Your task to perform on an android device: check android version Image 0: 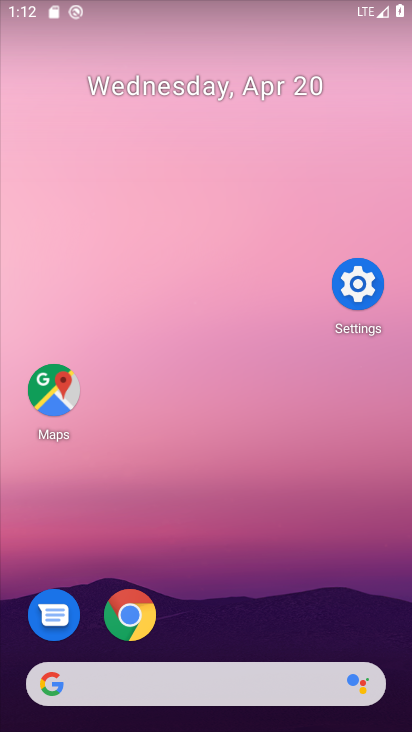
Step 0: click (364, 283)
Your task to perform on an android device: check android version Image 1: 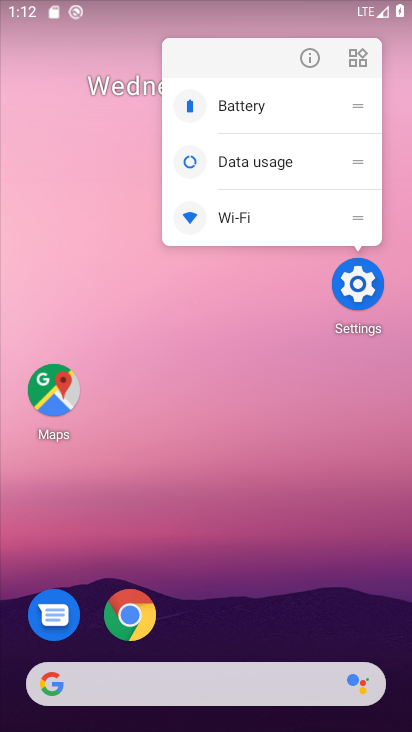
Step 1: click (315, 53)
Your task to perform on an android device: check android version Image 2: 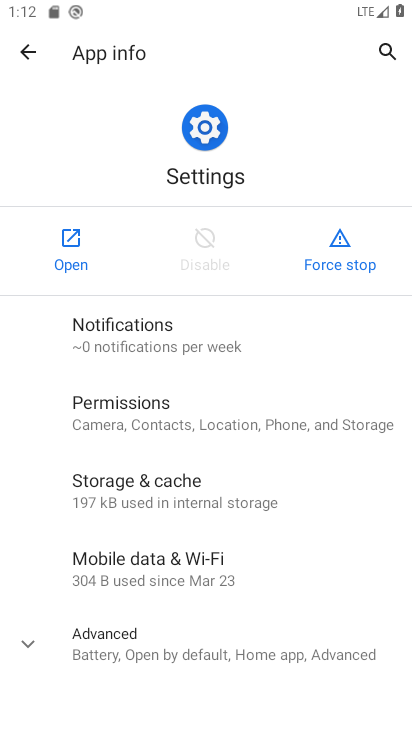
Step 2: click (66, 240)
Your task to perform on an android device: check android version Image 3: 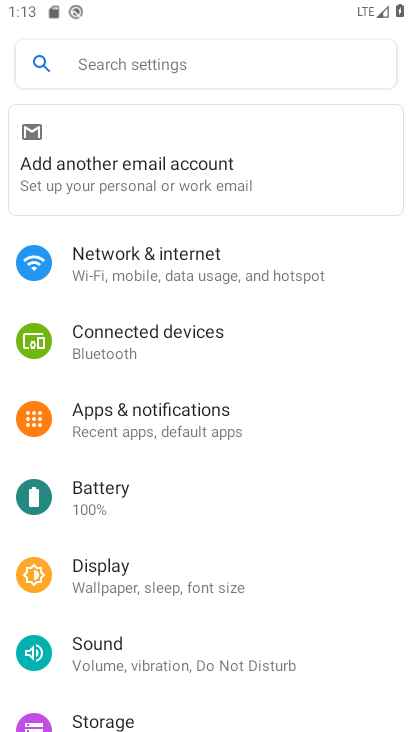
Step 3: drag from (193, 572) to (290, 128)
Your task to perform on an android device: check android version Image 4: 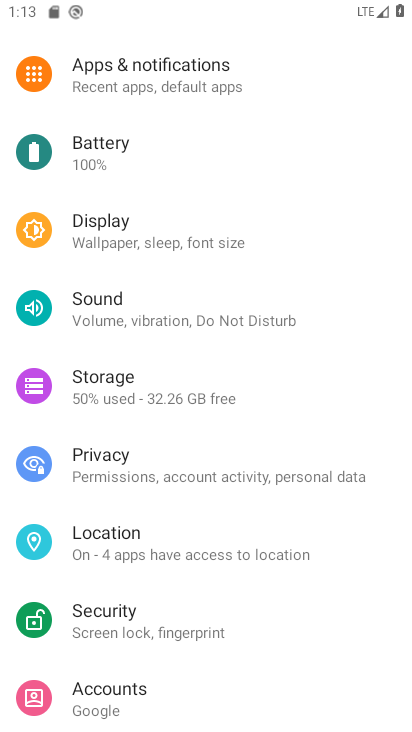
Step 4: drag from (174, 620) to (322, 74)
Your task to perform on an android device: check android version Image 5: 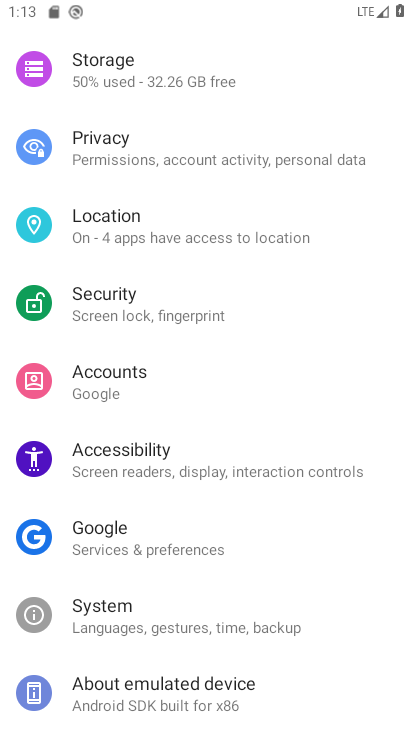
Step 5: drag from (174, 618) to (325, 173)
Your task to perform on an android device: check android version Image 6: 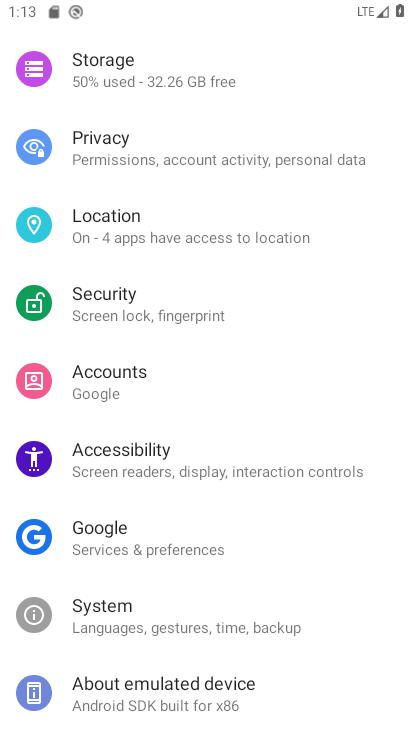
Step 6: click (150, 691)
Your task to perform on an android device: check android version Image 7: 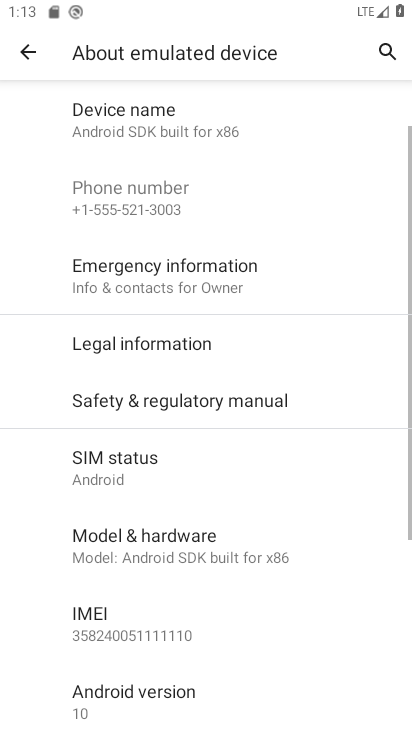
Step 7: click (166, 699)
Your task to perform on an android device: check android version Image 8: 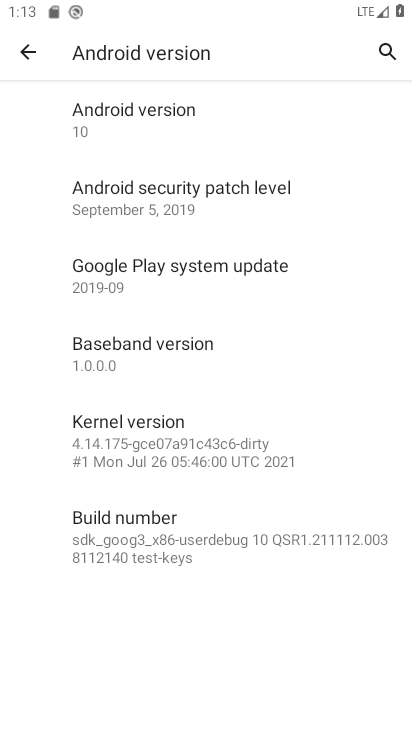
Step 8: click (156, 114)
Your task to perform on an android device: check android version Image 9: 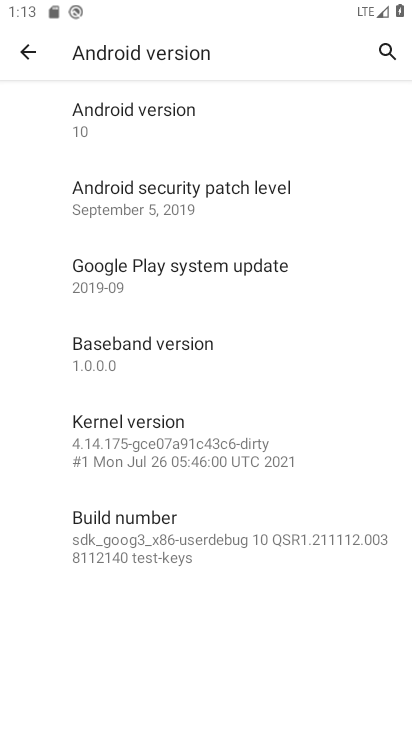
Step 9: task complete